Your task to perform on an android device: open device folders in google photos Image 0: 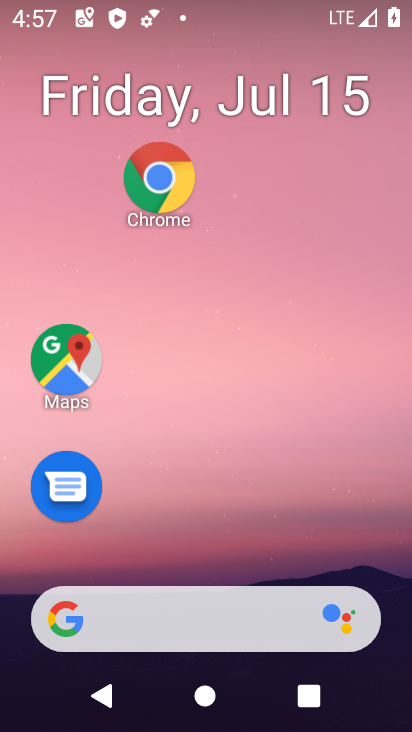
Step 0: drag from (203, 437) to (232, 33)
Your task to perform on an android device: open device folders in google photos Image 1: 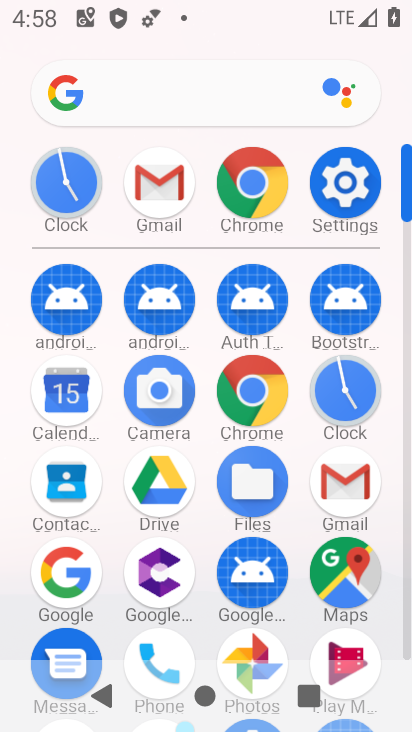
Step 1: click (250, 653)
Your task to perform on an android device: open device folders in google photos Image 2: 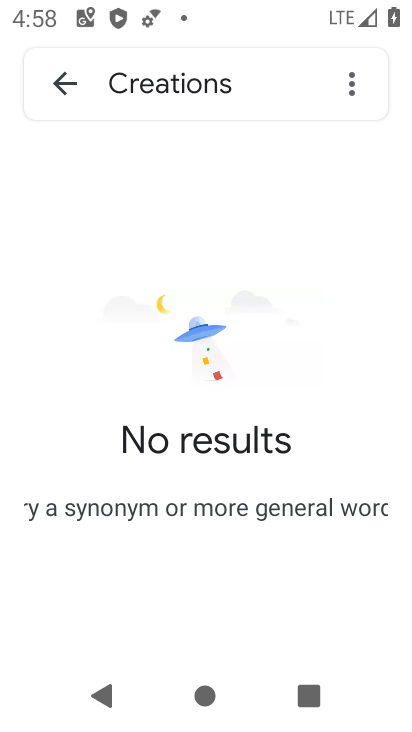
Step 2: click (63, 75)
Your task to perform on an android device: open device folders in google photos Image 3: 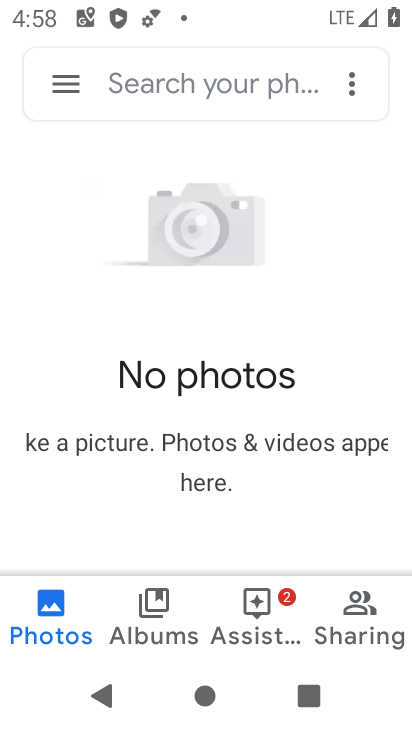
Step 3: click (63, 75)
Your task to perform on an android device: open device folders in google photos Image 4: 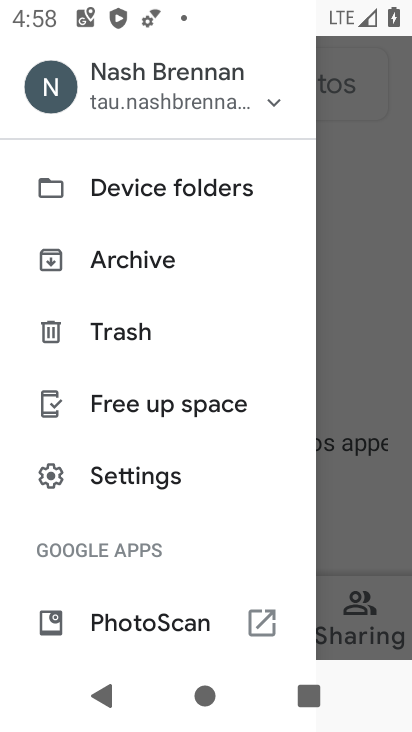
Step 4: click (148, 190)
Your task to perform on an android device: open device folders in google photos Image 5: 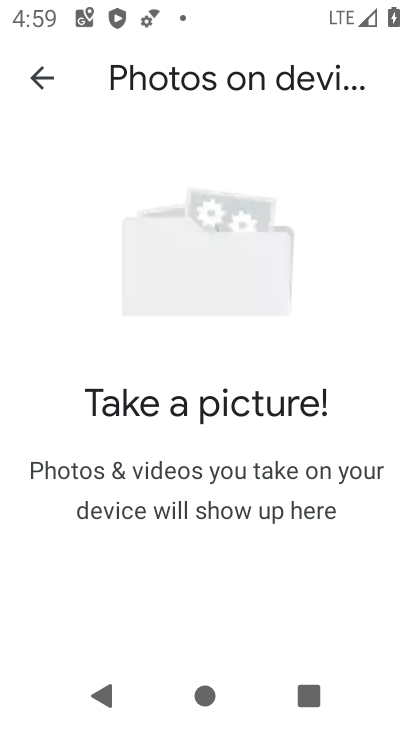
Step 5: task complete